Your task to perform on an android device: toggle show notifications on the lock screen Image 0: 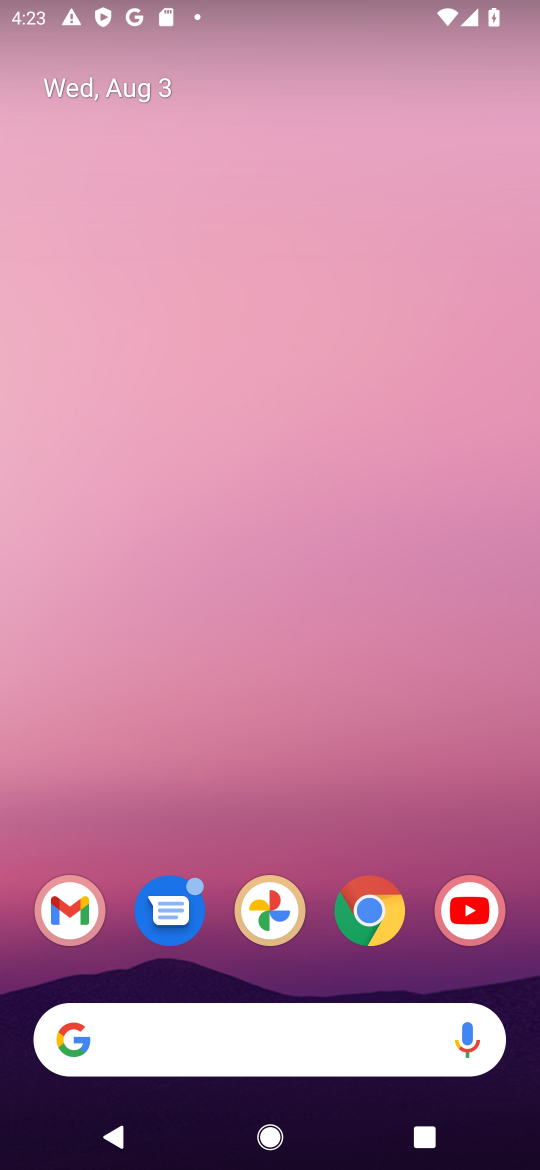
Step 0: drag from (92, 1129) to (225, 118)
Your task to perform on an android device: toggle show notifications on the lock screen Image 1: 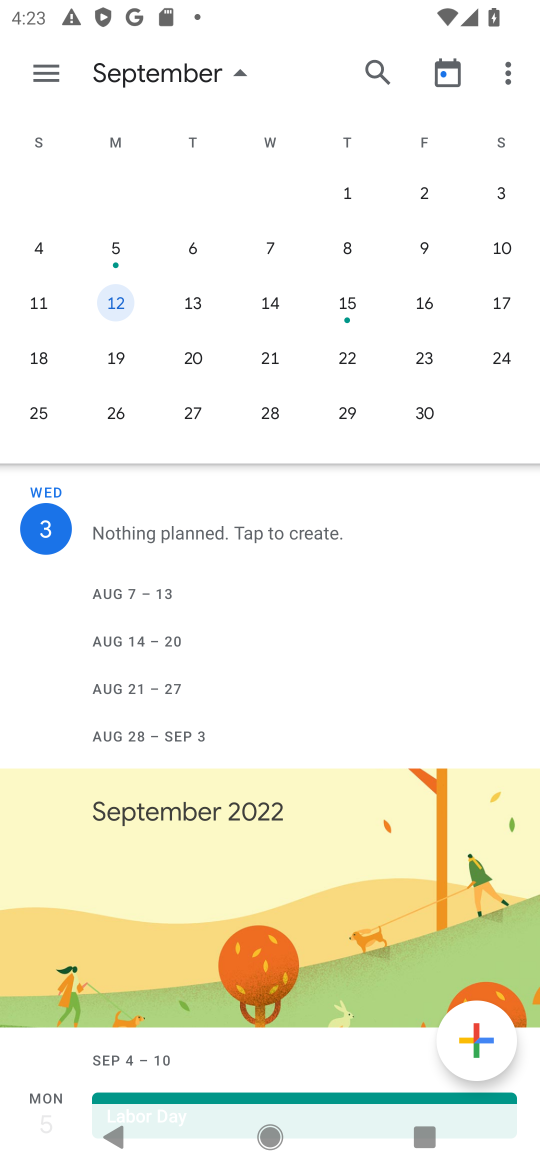
Step 1: press home button
Your task to perform on an android device: toggle show notifications on the lock screen Image 2: 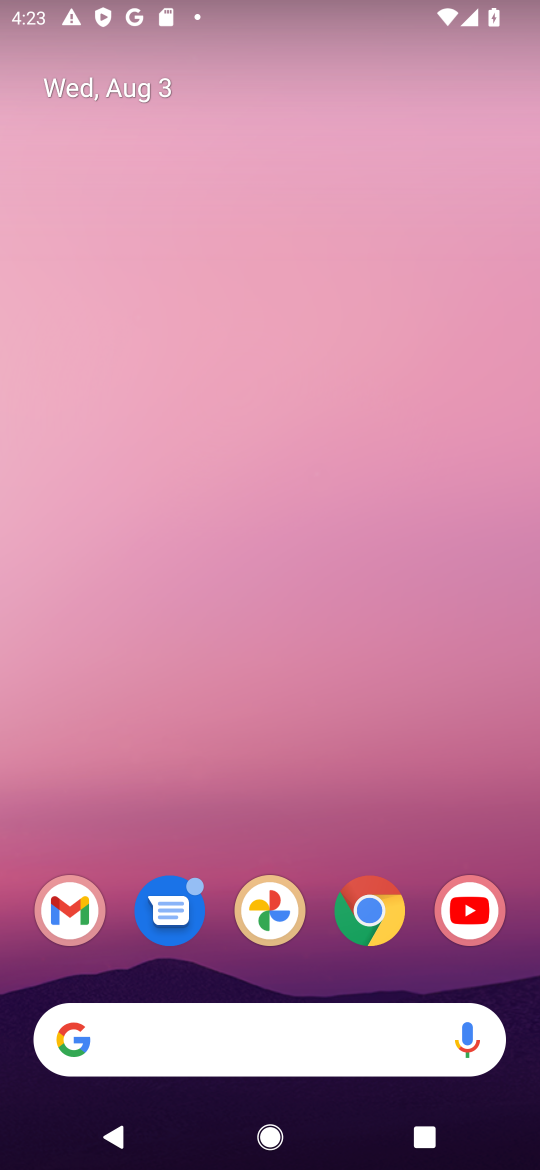
Step 2: drag from (68, 1136) to (266, 27)
Your task to perform on an android device: toggle show notifications on the lock screen Image 3: 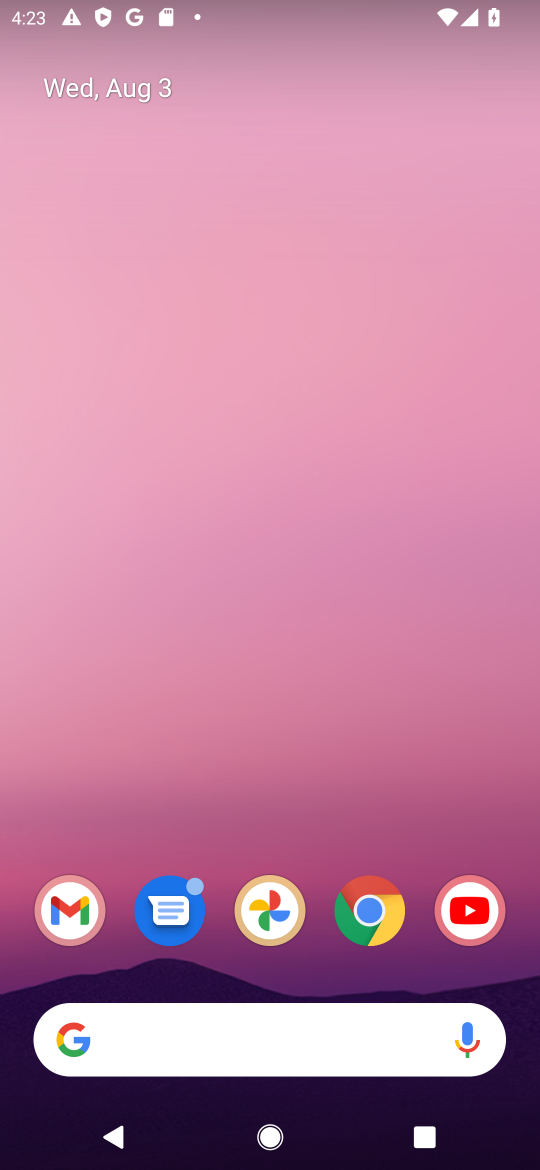
Step 3: drag from (64, 1107) to (271, 22)
Your task to perform on an android device: toggle show notifications on the lock screen Image 4: 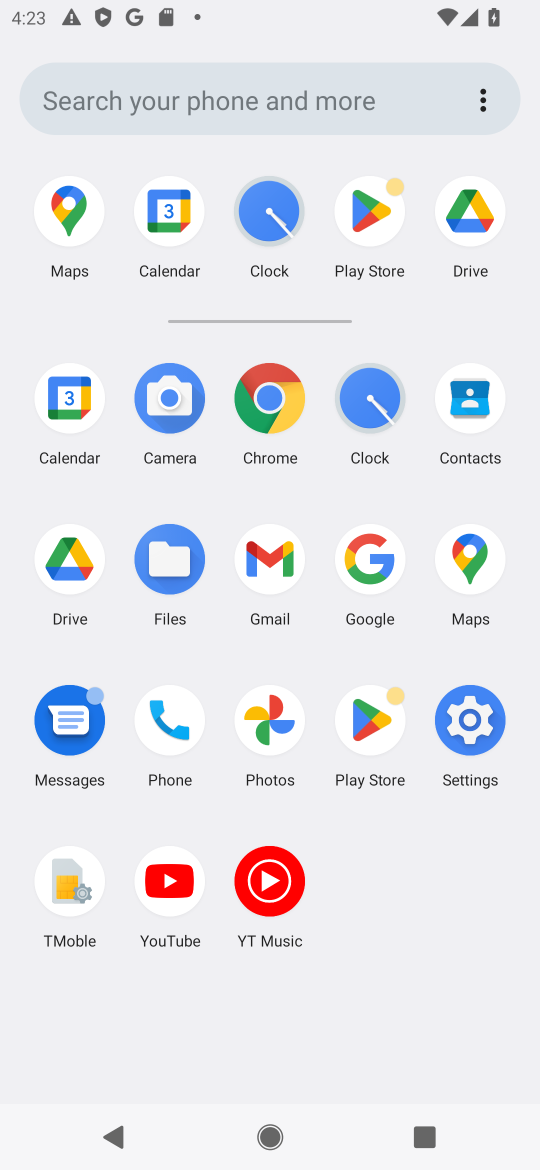
Step 4: click (482, 712)
Your task to perform on an android device: toggle show notifications on the lock screen Image 5: 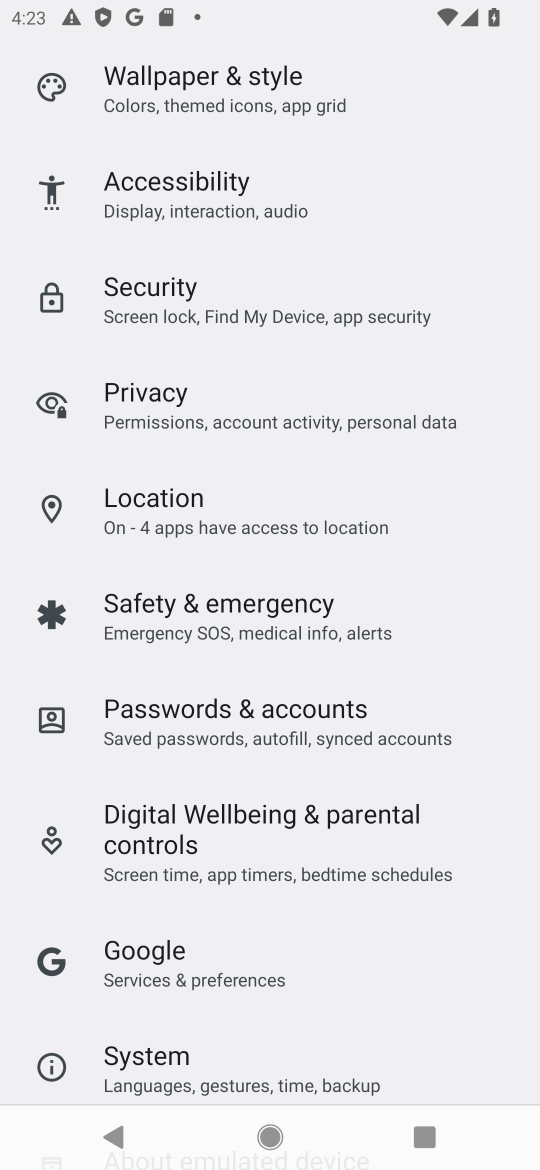
Step 5: drag from (378, 69) to (431, 874)
Your task to perform on an android device: toggle show notifications on the lock screen Image 6: 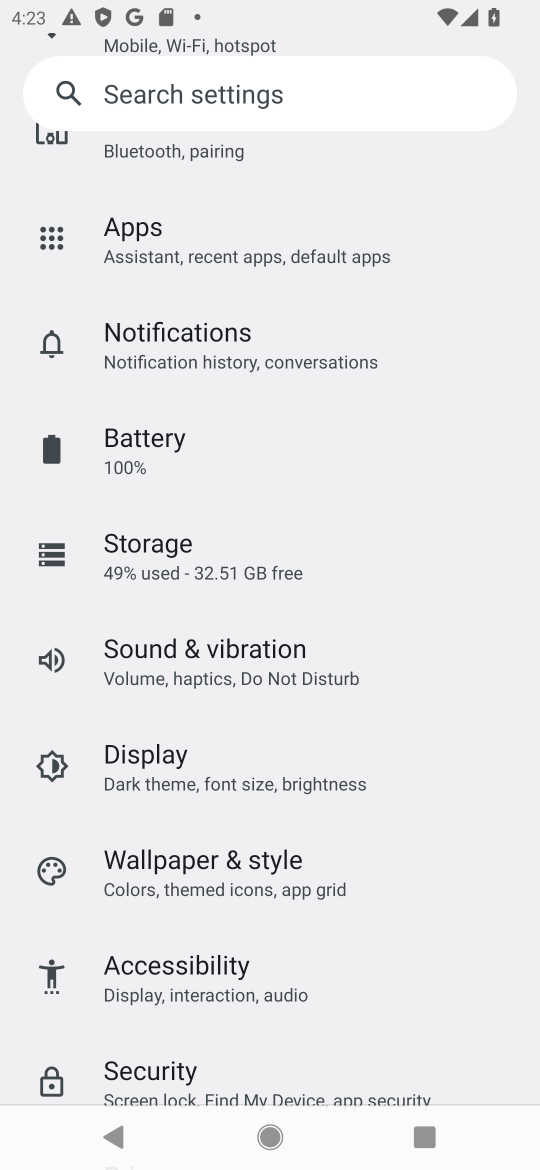
Step 6: drag from (350, 170) to (350, 843)
Your task to perform on an android device: toggle show notifications on the lock screen Image 7: 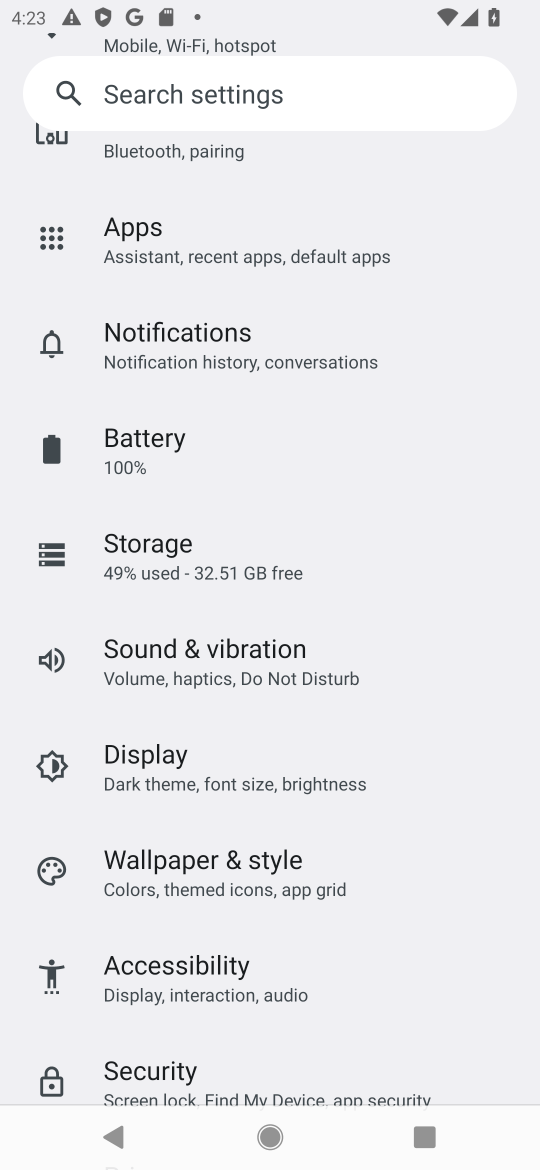
Step 7: click (199, 332)
Your task to perform on an android device: toggle show notifications on the lock screen Image 8: 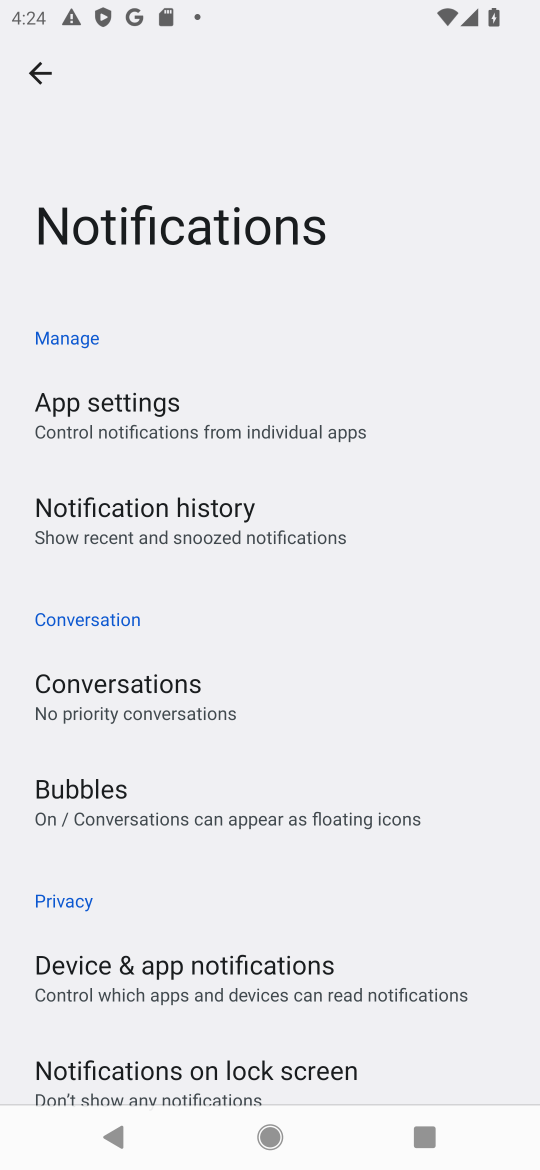
Step 8: click (237, 1071)
Your task to perform on an android device: toggle show notifications on the lock screen Image 9: 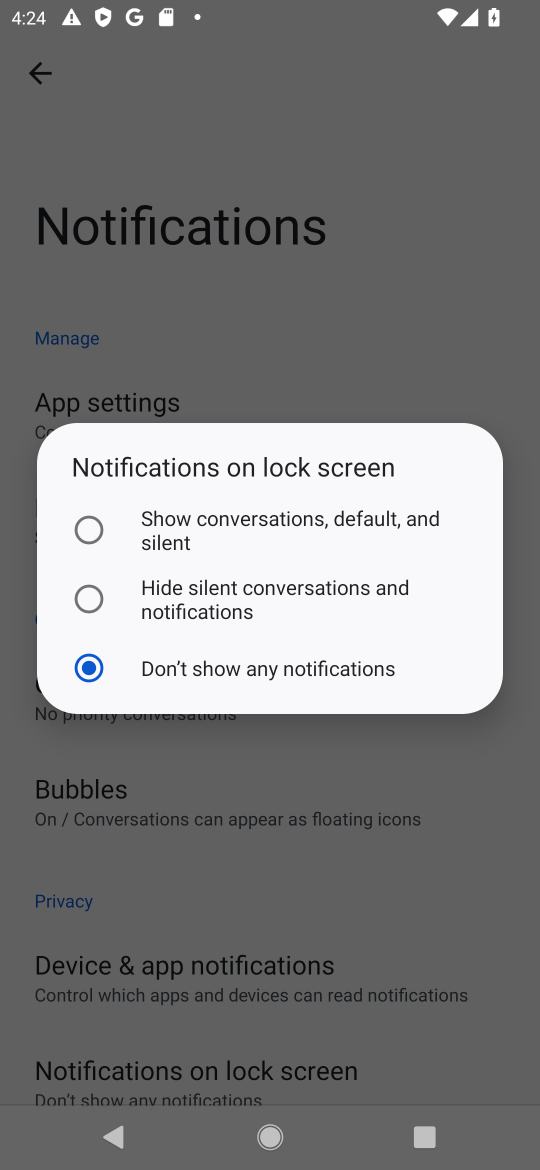
Step 9: click (205, 505)
Your task to perform on an android device: toggle show notifications on the lock screen Image 10: 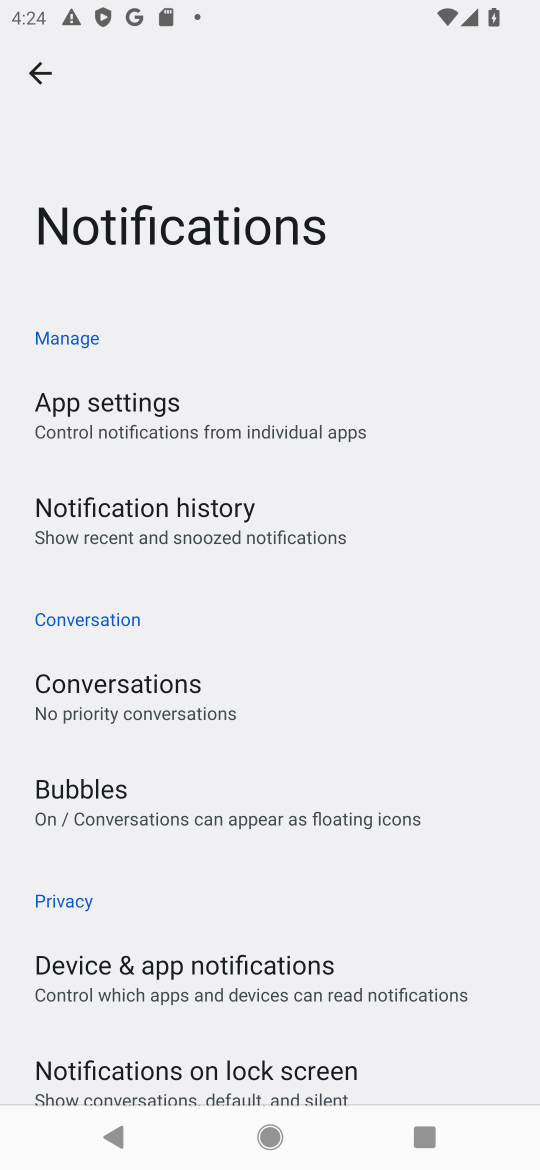
Step 10: task complete